Your task to perform on an android device: turn off improve location accuracy Image 0: 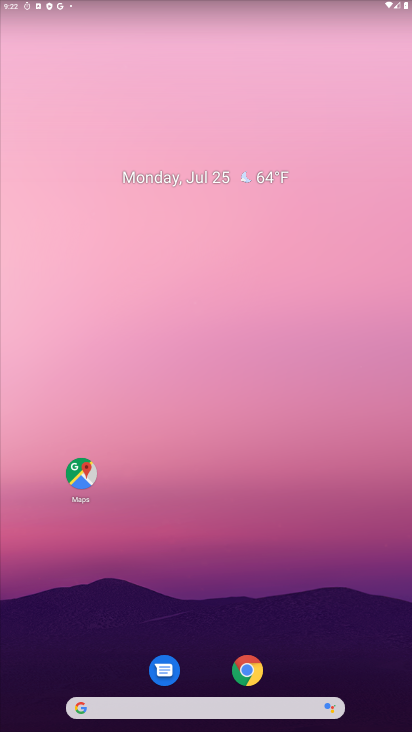
Step 0: drag from (357, 660) to (199, 34)
Your task to perform on an android device: turn off improve location accuracy Image 1: 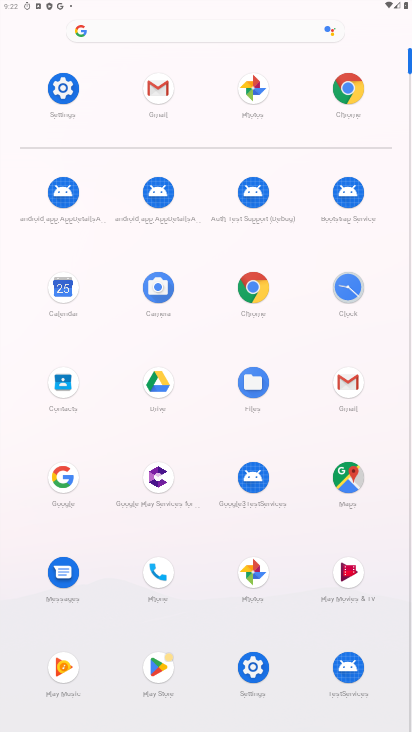
Step 1: click (240, 674)
Your task to perform on an android device: turn off improve location accuracy Image 2: 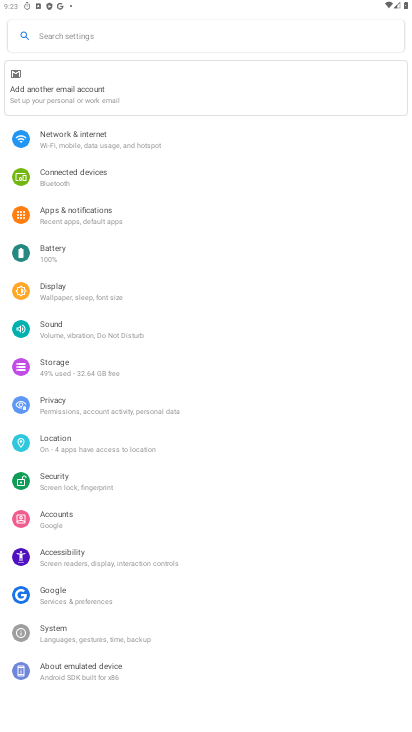
Step 2: click (61, 444)
Your task to perform on an android device: turn off improve location accuracy Image 3: 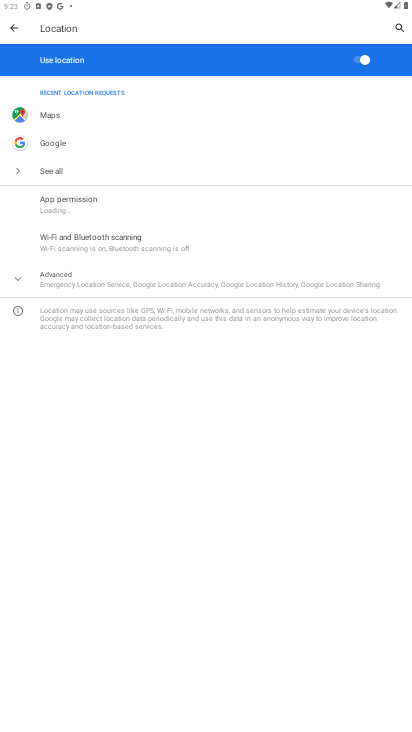
Step 3: click (83, 286)
Your task to perform on an android device: turn off improve location accuracy Image 4: 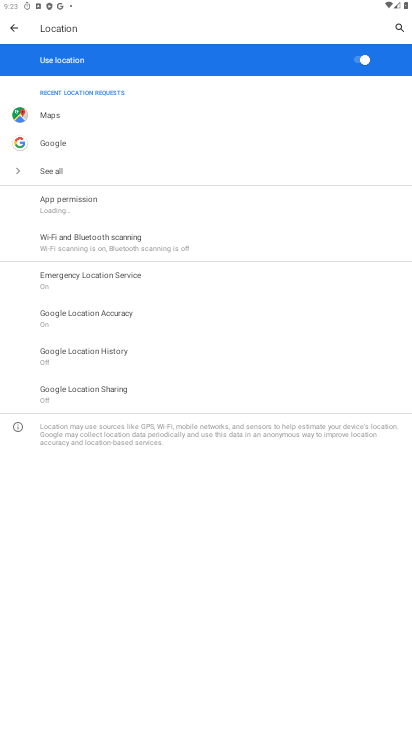
Step 4: click (114, 363)
Your task to perform on an android device: turn off improve location accuracy Image 5: 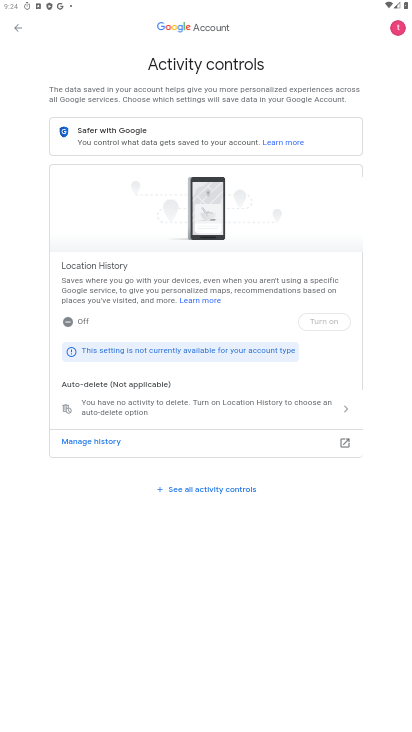
Step 5: press home button
Your task to perform on an android device: turn off improve location accuracy Image 6: 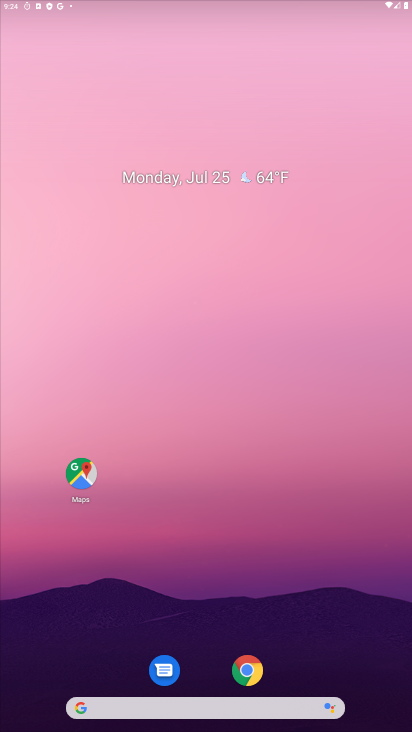
Step 6: drag from (332, 690) to (187, 33)
Your task to perform on an android device: turn off improve location accuracy Image 7: 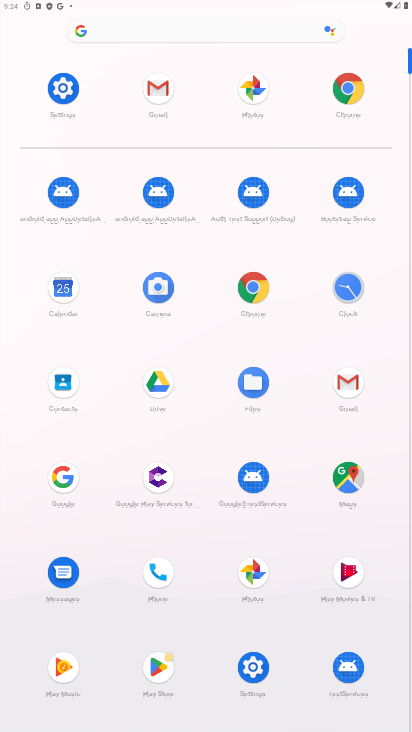
Step 7: click (252, 670)
Your task to perform on an android device: turn off improve location accuracy Image 8: 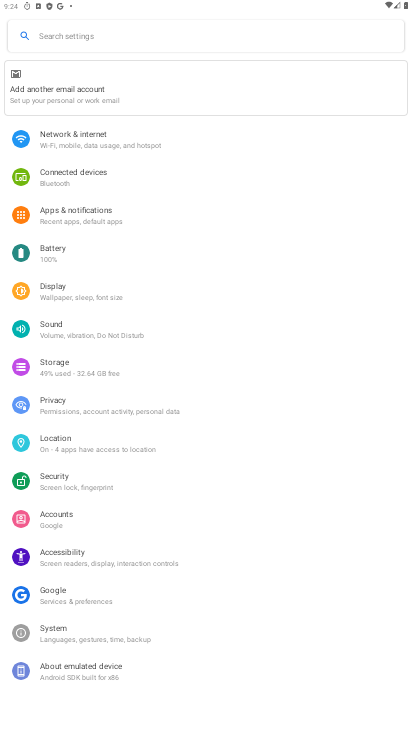
Step 8: click (70, 451)
Your task to perform on an android device: turn off improve location accuracy Image 9: 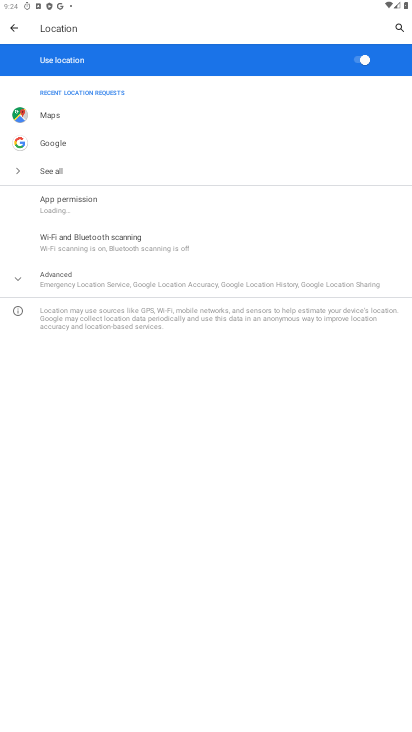
Step 9: click (105, 279)
Your task to perform on an android device: turn off improve location accuracy Image 10: 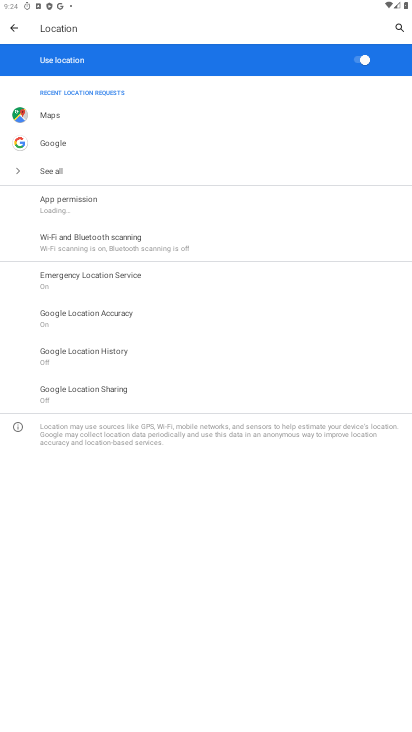
Step 10: click (110, 312)
Your task to perform on an android device: turn off improve location accuracy Image 11: 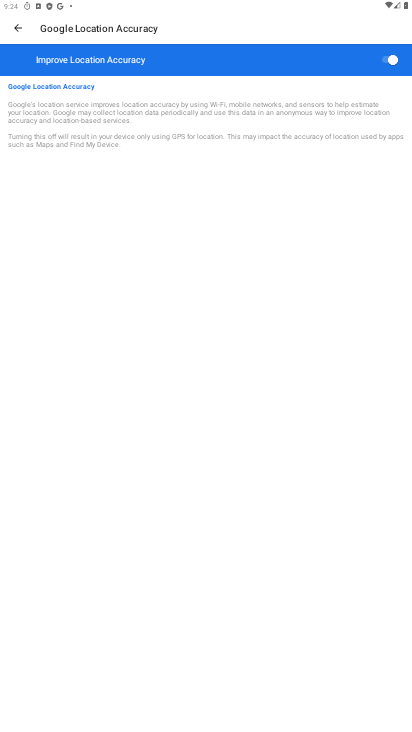
Step 11: click (380, 64)
Your task to perform on an android device: turn off improve location accuracy Image 12: 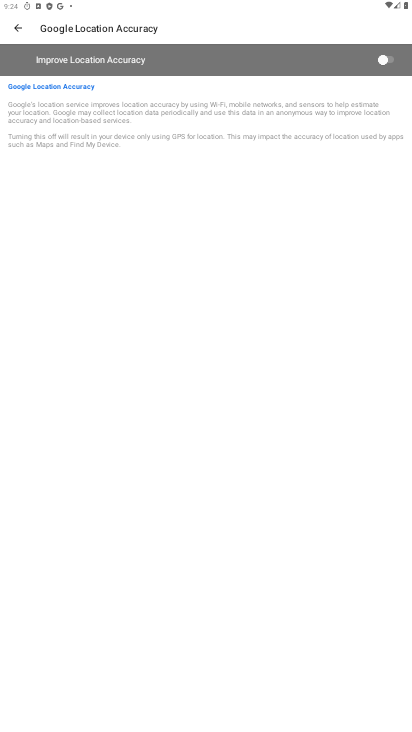
Step 12: task complete